Your task to perform on an android device: set default search engine in the chrome app Image 0: 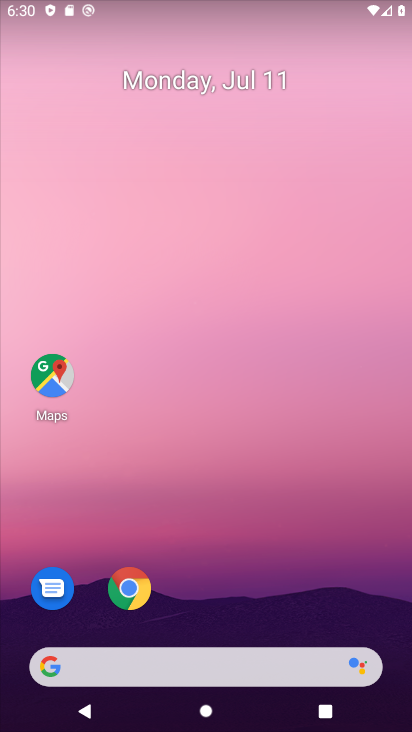
Step 0: drag from (373, 605) to (262, 217)
Your task to perform on an android device: set default search engine in the chrome app Image 1: 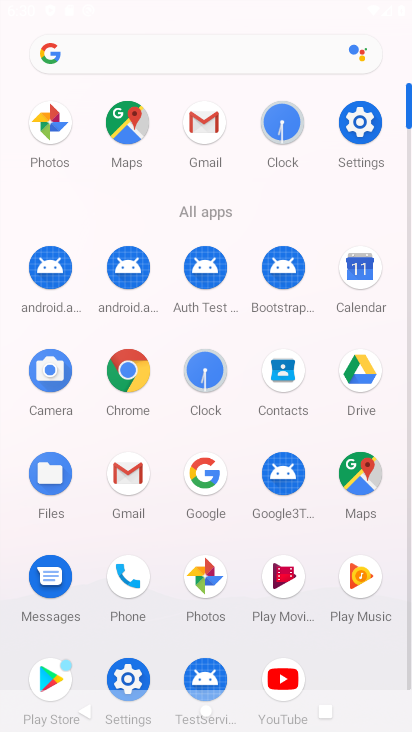
Step 1: click (115, 349)
Your task to perform on an android device: set default search engine in the chrome app Image 2: 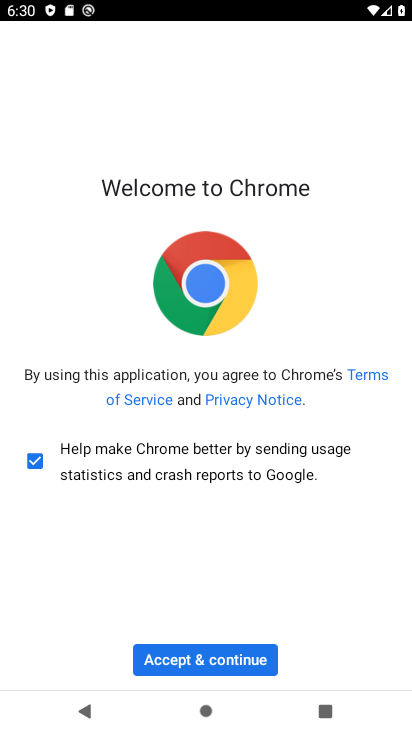
Step 2: click (192, 652)
Your task to perform on an android device: set default search engine in the chrome app Image 3: 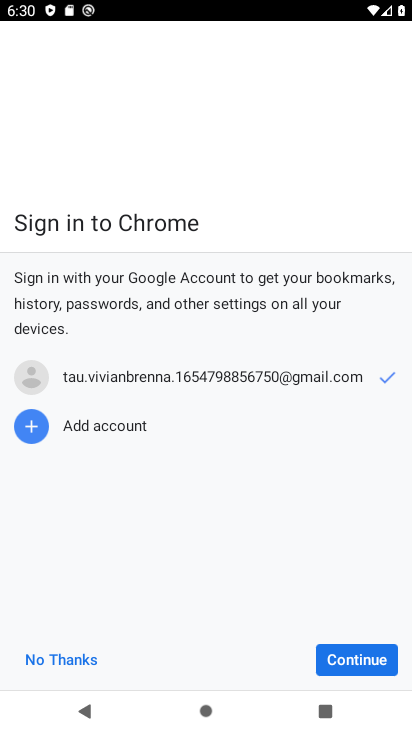
Step 3: click (351, 658)
Your task to perform on an android device: set default search engine in the chrome app Image 4: 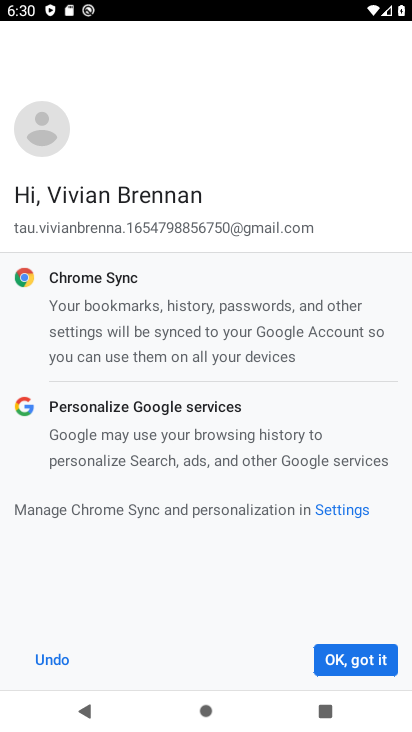
Step 4: click (358, 660)
Your task to perform on an android device: set default search engine in the chrome app Image 5: 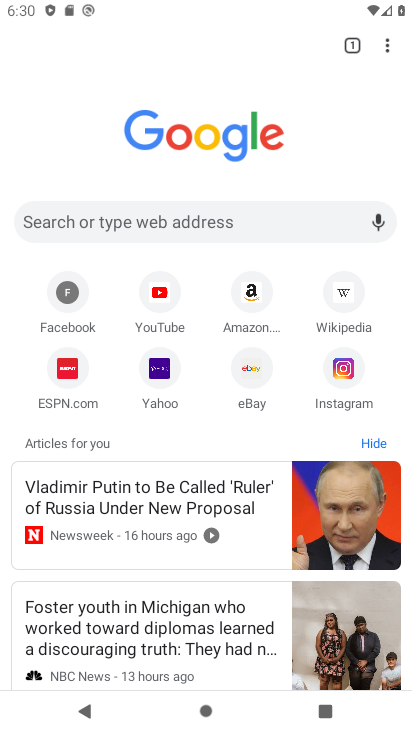
Step 5: click (386, 43)
Your task to perform on an android device: set default search engine in the chrome app Image 6: 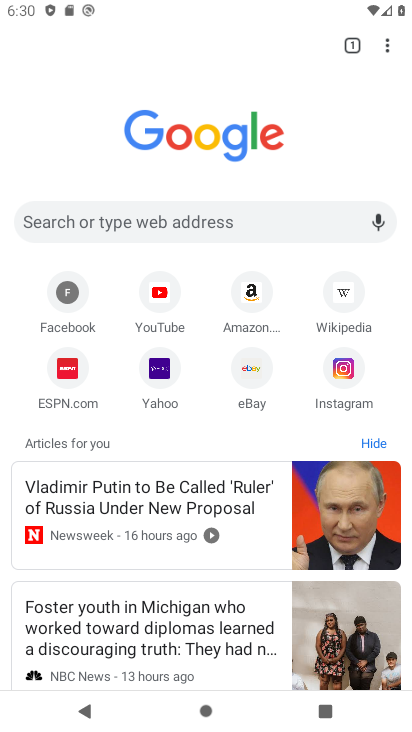
Step 6: click (386, 42)
Your task to perform on an android device: set default search engine in the chrome app Image 7: 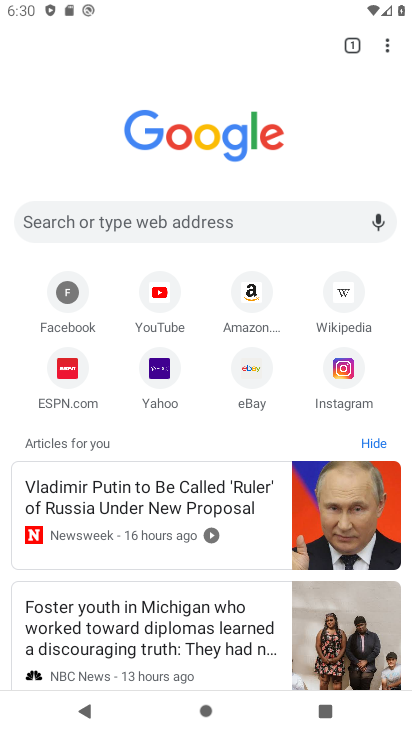
Step 7: click (384, 44)
Your task to perform on an android device: set default search engine in the chrome app Image 8: 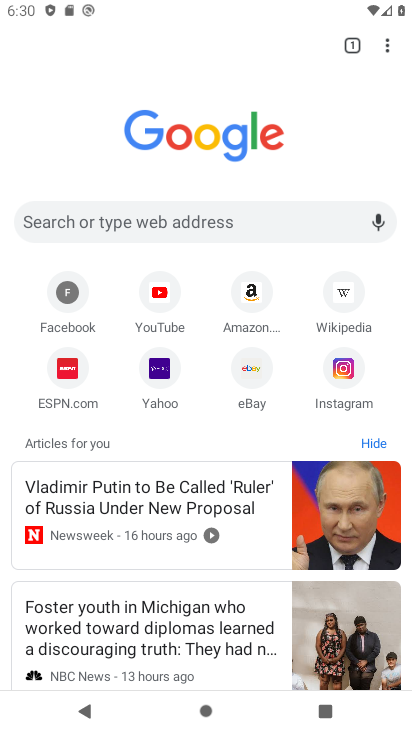
Step 8: click (384, 44)
Your task to perform on an android device: set default search engine in the chrome app Image 9: 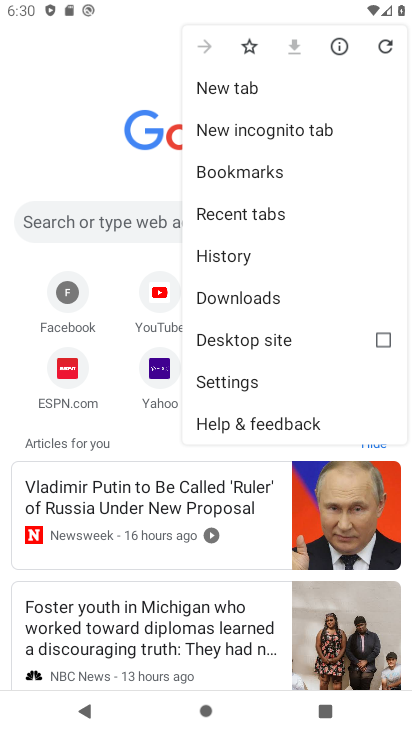
Step 9: click (246, 379)
Your task to perform on an android device: set default search engine in the chrome app Image 10: 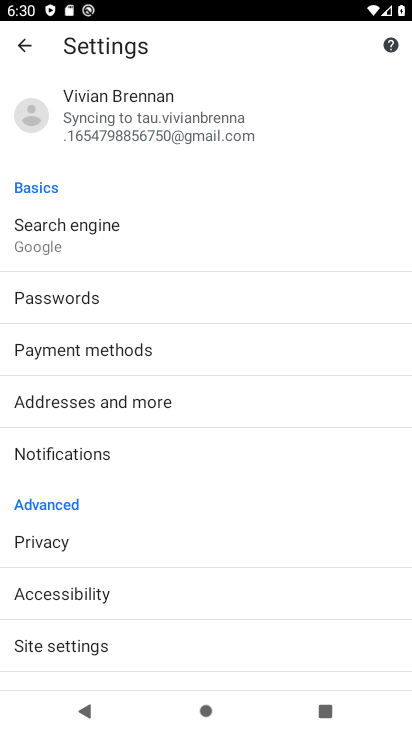
Step 10: click (130, 236)
Your task to perform on an android device: set default search engine in the chrome app Image 11: 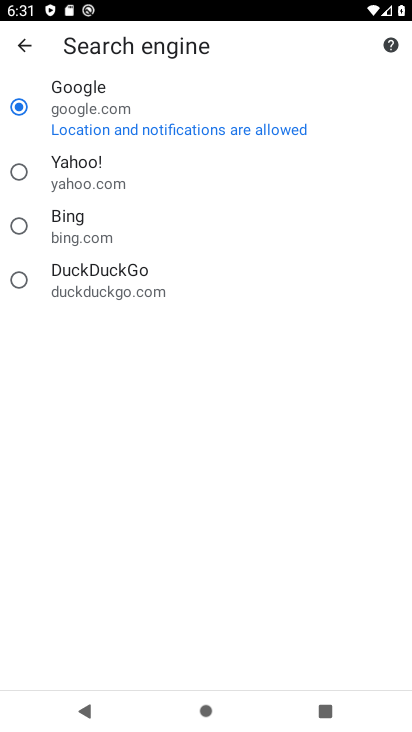
Step 11: click (85, 227)
Your task to perform on an android device: set default search engine in the chrome app Image 12: 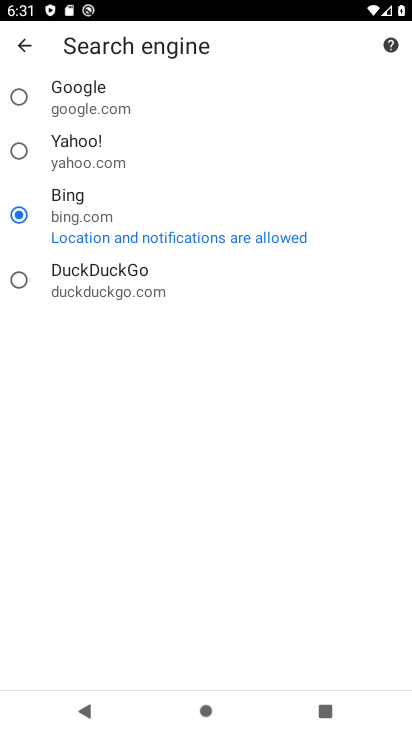
Step 12: task complete